Your task to perform on an android device: toggle location history Image 0: 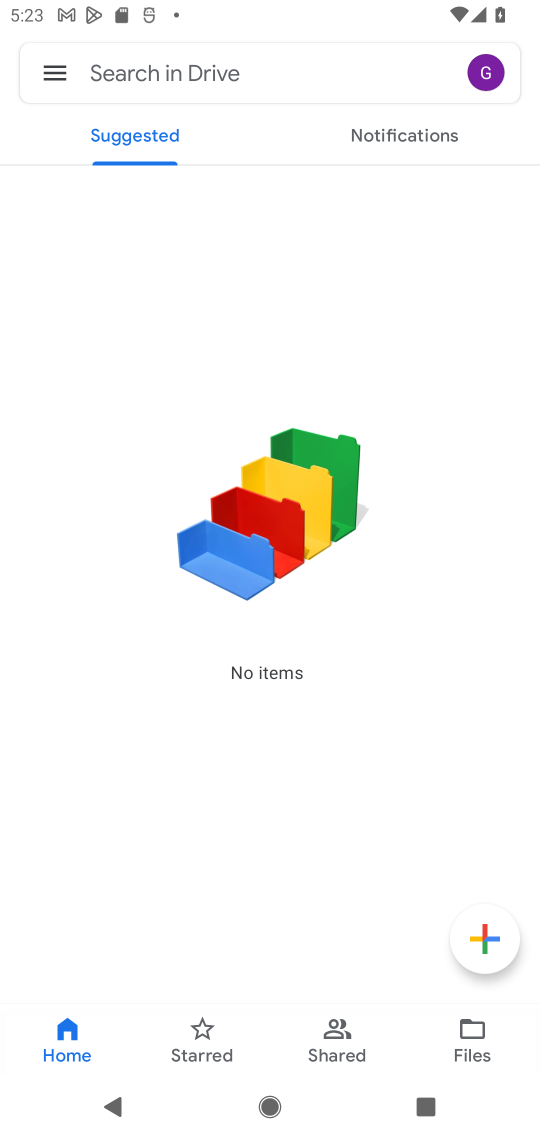
Step 0: task complete